Your task to perform on an android device: Open Google Maps and go to "Timeline" Image 0: 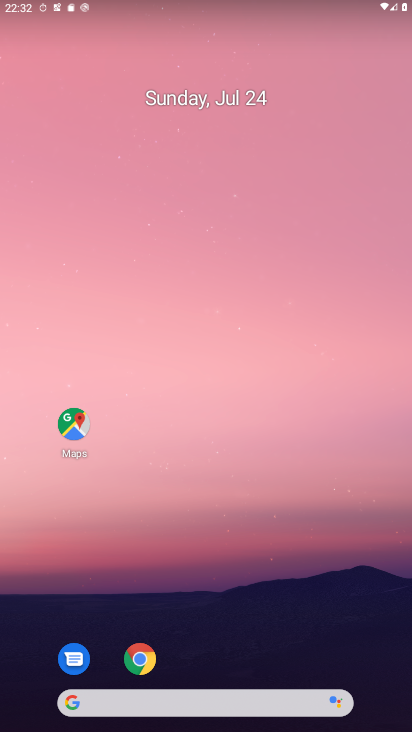
Step 0: drag from (186, 691) to (194, 132)
Your task to perform on an android device: Open Google Maps and go to "Timeline" Image 1: 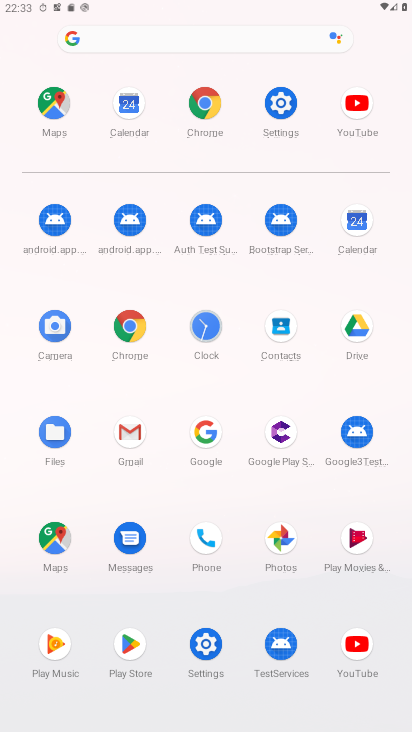
Step 1: click (49, 547)
Your task to perform on an android device: Open Google Maps and go to "Timeline" Image 2: 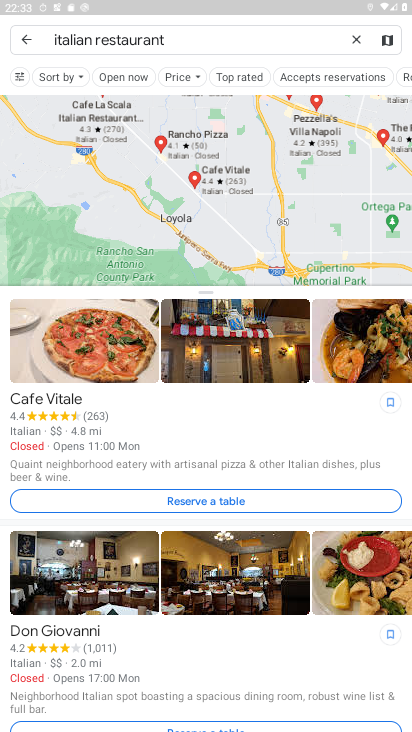
Step 2: click (28, 37)
Your task to perform on an android device: Open Google Maps and go to "Timeline" Image 3: 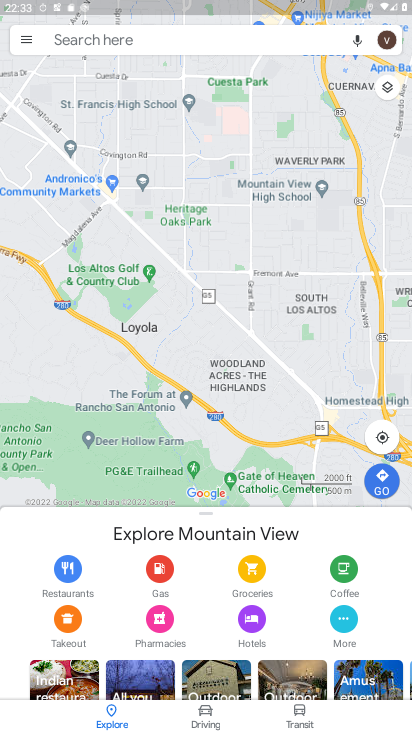
Step 3: click (28, 37)
Your task to perform on an android device: Open Google Maps and go to "Timeline" Image 4: 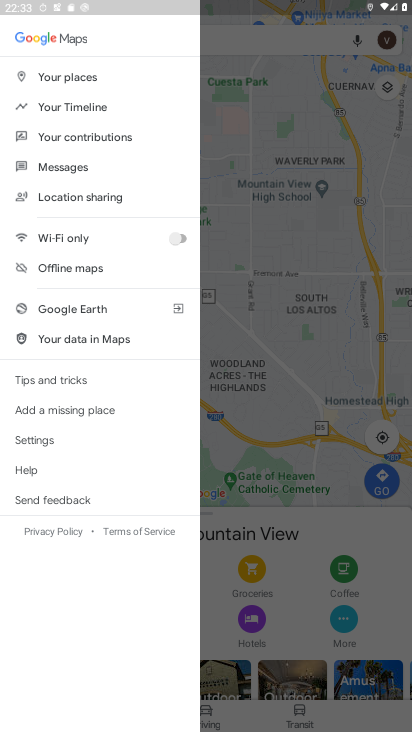
Step 4: click (54, 104)
Your task to perform on an android device: Open Google Maps and go to "Timeline" Image 5: 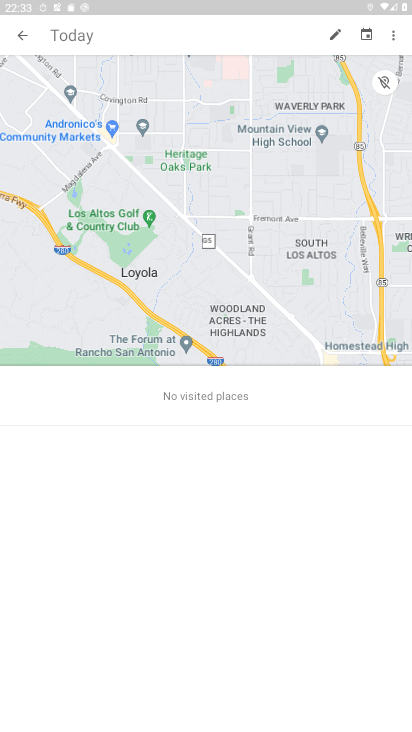
Step 5: task complete